Your task to perform on an android device: Open the web browser Image 0: 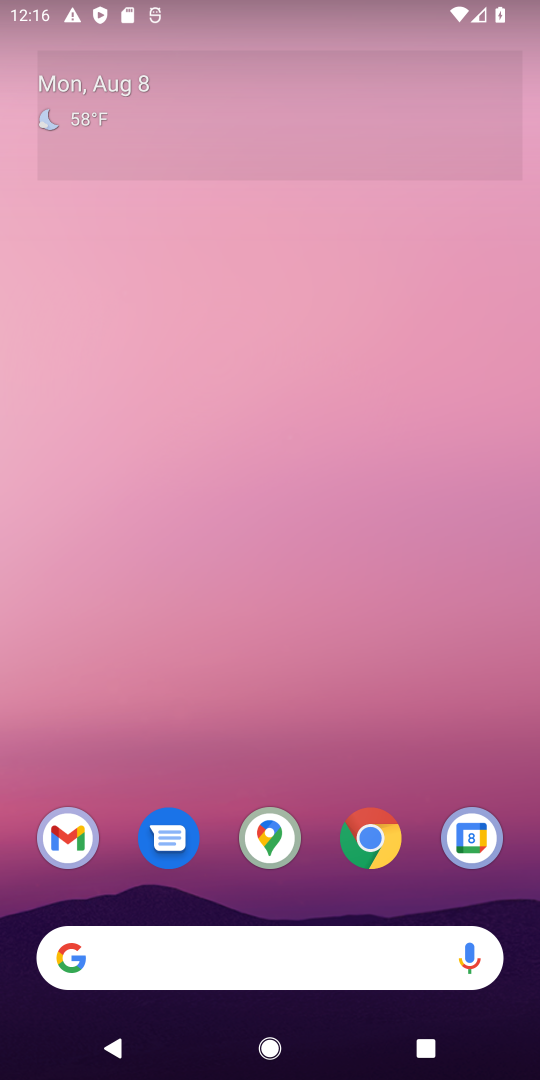
Step 0: press home button
Your task to perform on an android device: Open the web browser Image 1: 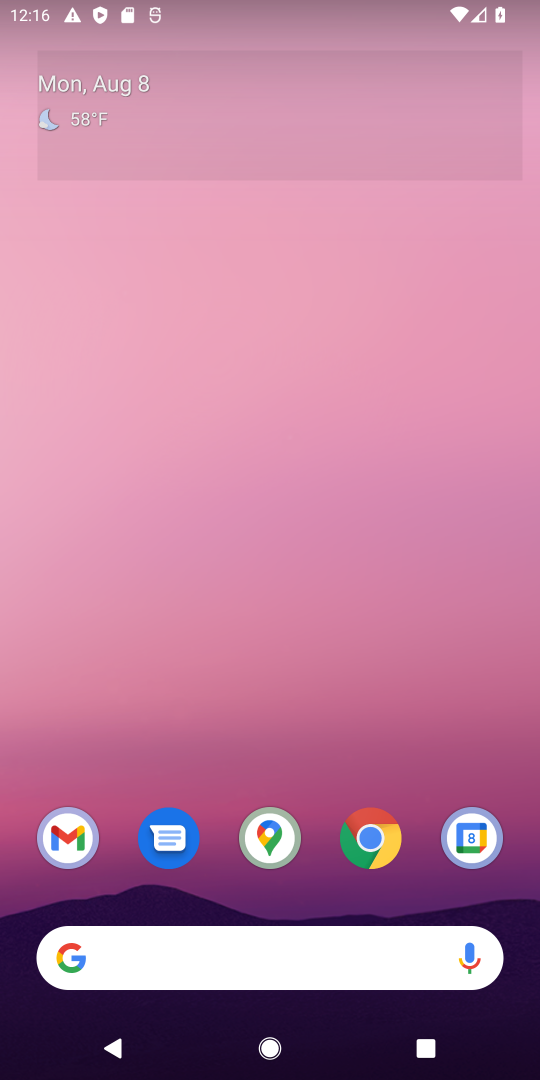
Step 1: click (74, 946)
Your task to perform on an android device: Open the web browser Image 2: 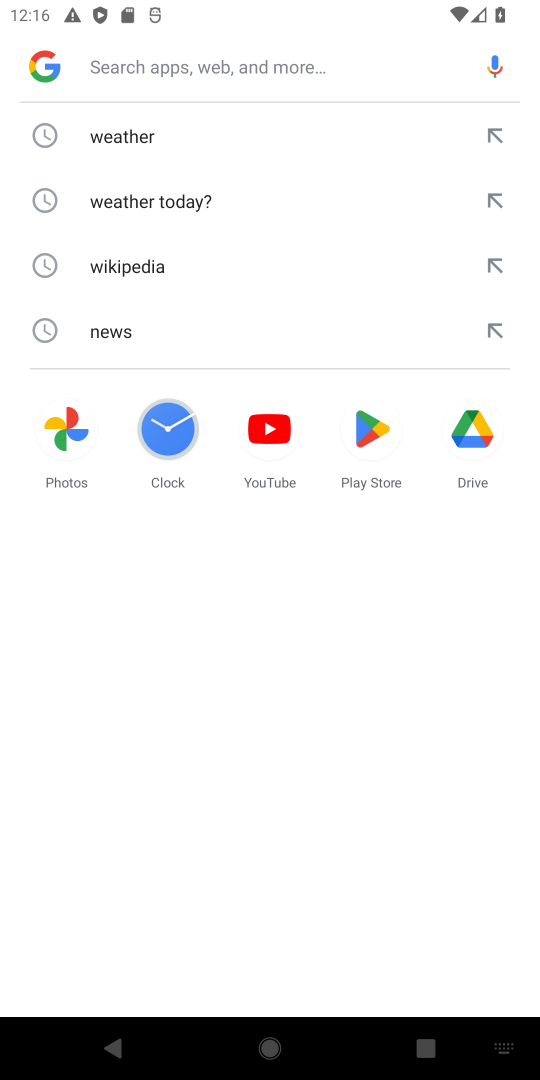
Step 2: task complete